Your task to perform on an android device: search for starred emails in the gmail app Image 0: 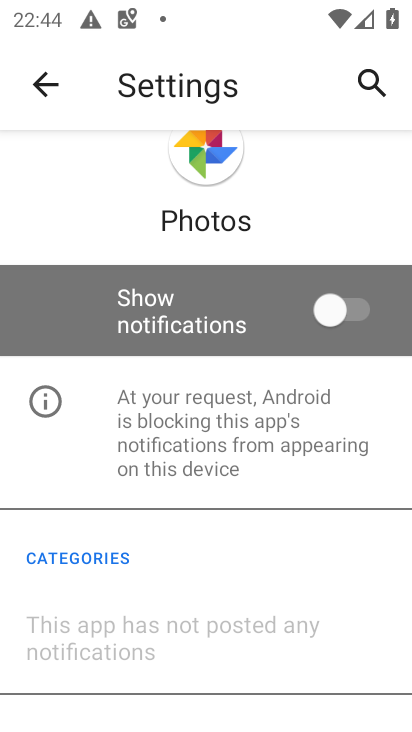
Step 0: press home button
Your task to perform on an android device: search for starred emails in the gmail app Image 1: 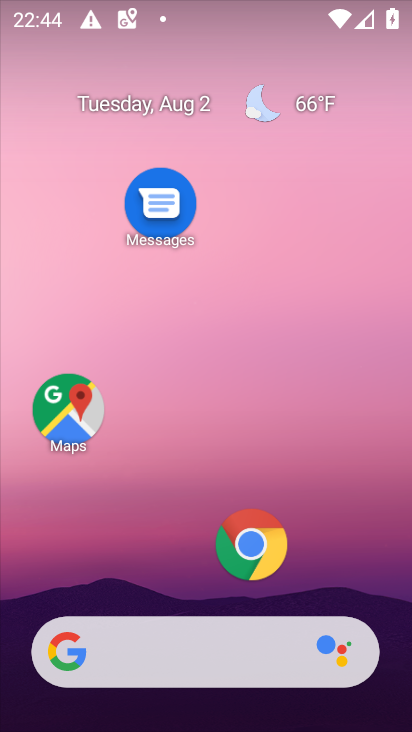
Step 1: drag from (172, 564) to (173, 190)
Your task to perform on an android device: search for starred emails in the gmail app Image 2: 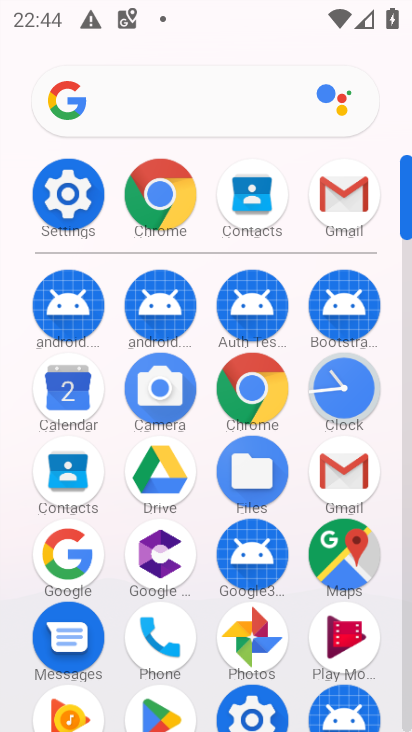
Step 2: click (354, 204)
Your task to perform on an android device: search for starred emails in the gmail app Image 3: 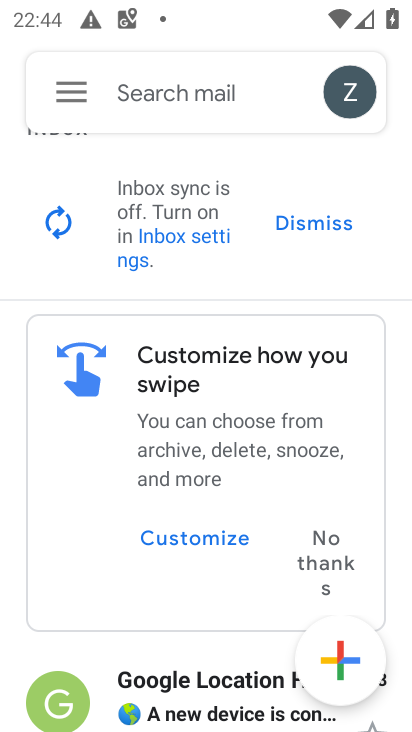
Step 3: click (83, 98)
Your task to perform on an android device: search for starred emails in the gmail app Image 4: 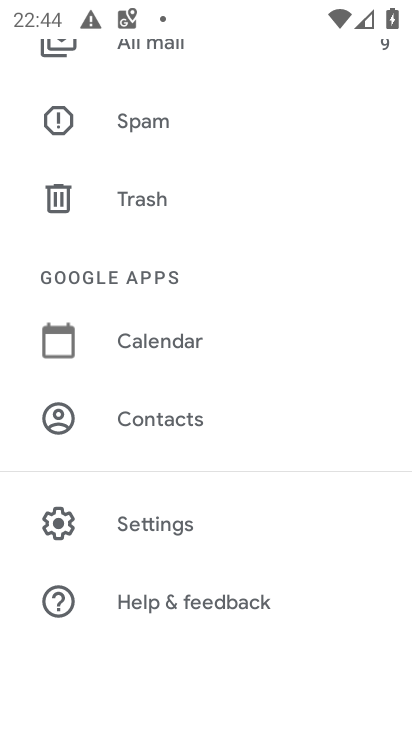
Step 4: drag from (222, 184) to (228, 592)
Your task to perform on an android device: search for starred emails in the gmail app Image 5: 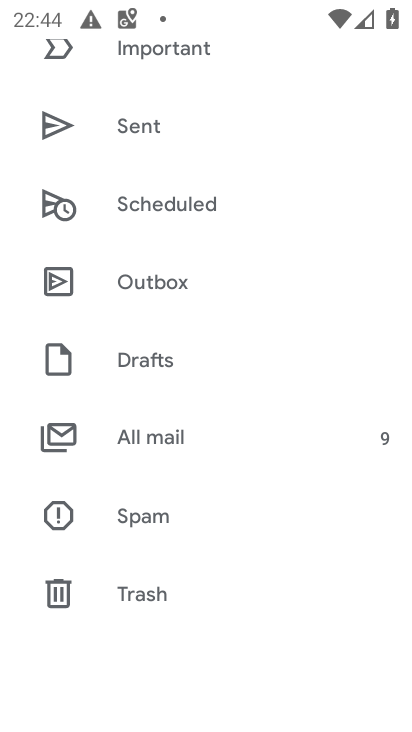
Step 5: drag from (186, 121) to (224, 546)
Your task to perform on an android device: search for starred emails in the gmail app Image 6: 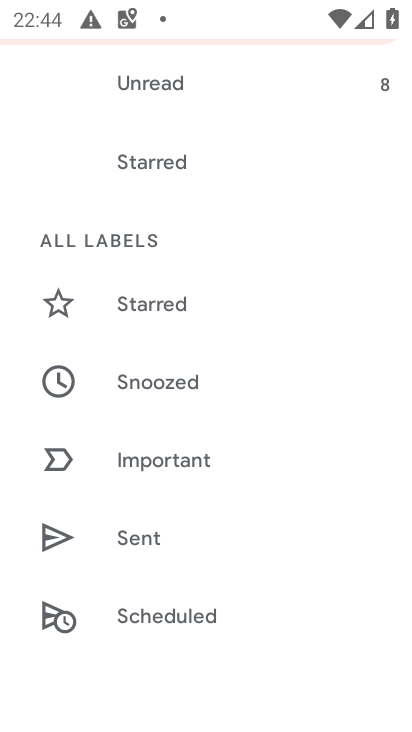
Step 6: click (179, 304)
Your task to perform on an android device: search for starred emails in the gmail app Image 7: 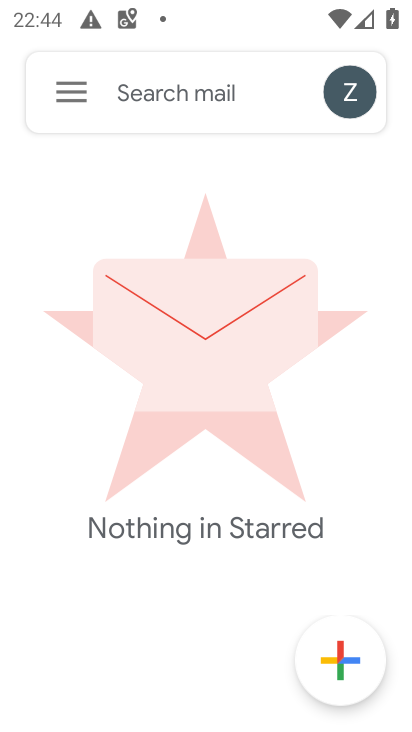
Step 7: task complete